Your task to perform on an android device: turn off priority inbox in the gmail app Image 0: 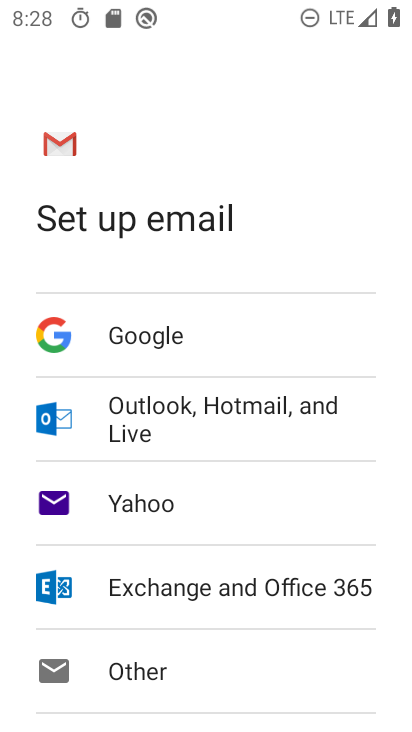
Step 0: press home button
Your task to perform on an android device: turn off priority inbox in the gmail app Image 1: 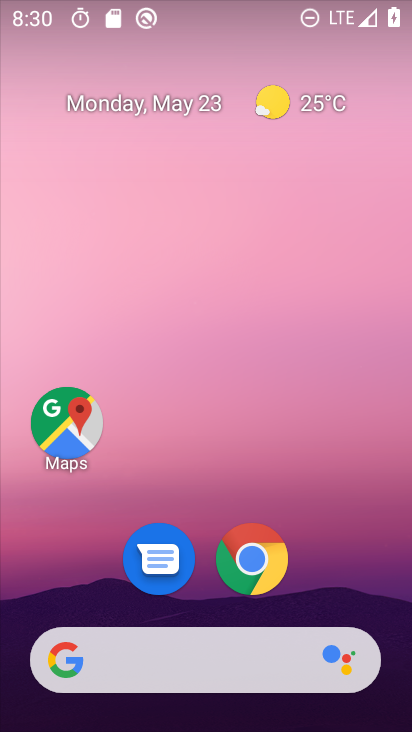
Step 1: drag from (338, 606) to (321, 2)
Your task to perform on an android device: turn off priority inbox in the gmail app Image 2: 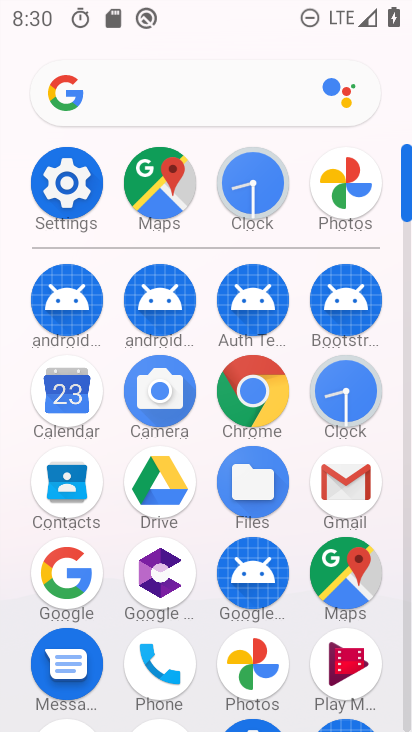
Step 2: click (354, 487)
Your task to perform on an android device: turn off priority inbox in the gmail app Image 3: 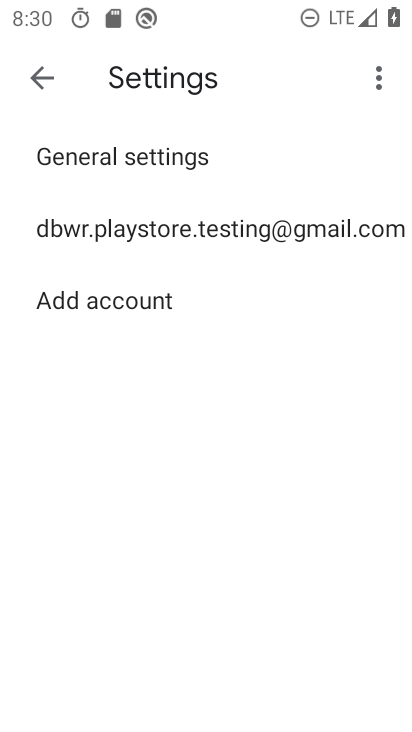
Step 3: click (164, 248)
Your task to perform on an android device: turn off priority inbox in the gmail app Image 4: 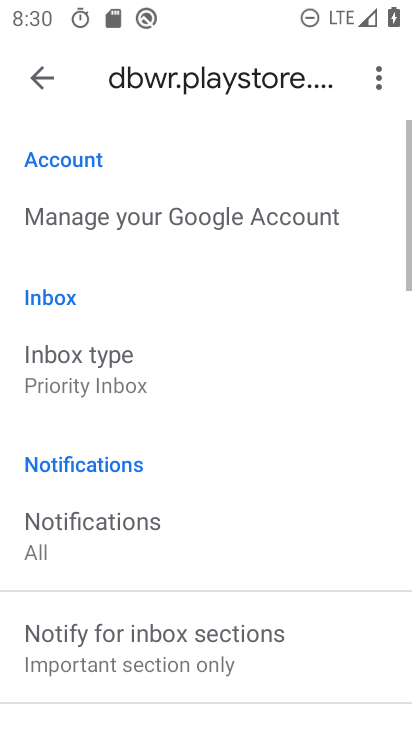
Step 4: click (159, 401)
Your task to perform on an android device: turn off priority inbox in the gmail app Image 5: 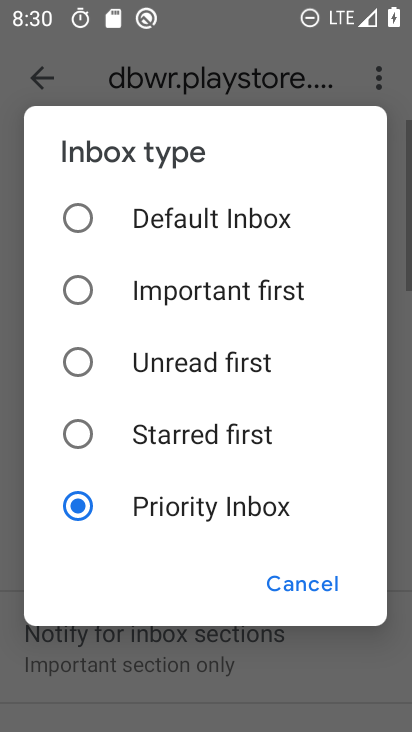
Step 5: click (75, 214)
Your task to perform on an android device: turn off priority inbox in the gmail app Image 6: 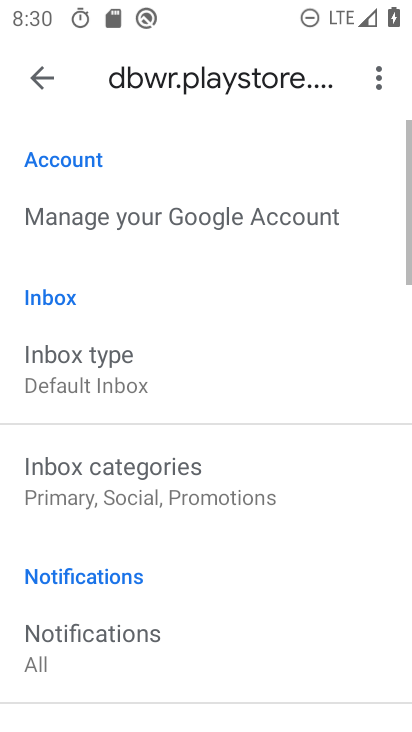
Step 6: click (84, 220)
Your task to perform on an android device: turn off priority inbox in the gmail app Image 7: 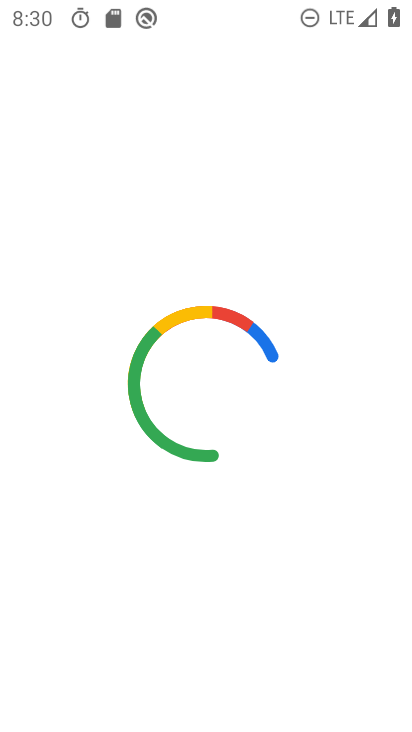
Step 7: task complete